Your task to perform on an android device: delete a single message in the gmail app Image 0: 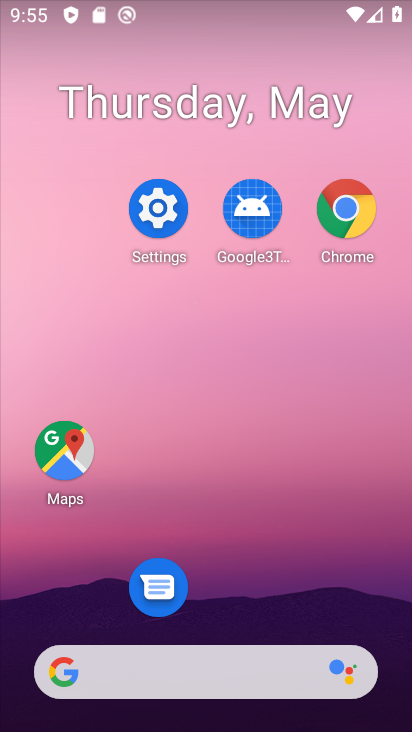
Step 0: drag from (233, 558) to (247, 10)
Your task to perform on an android device: delete a single message in the gmail app Image 1: 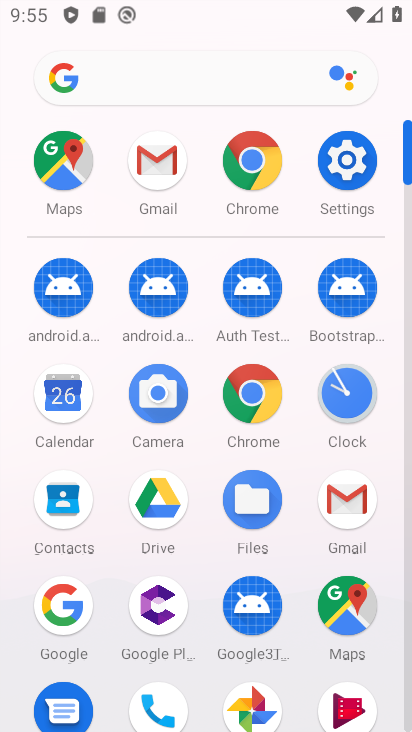
Step 1: click (149, 201)
Your task to perform on an android device: delete a single message in the gmail app Image 2: 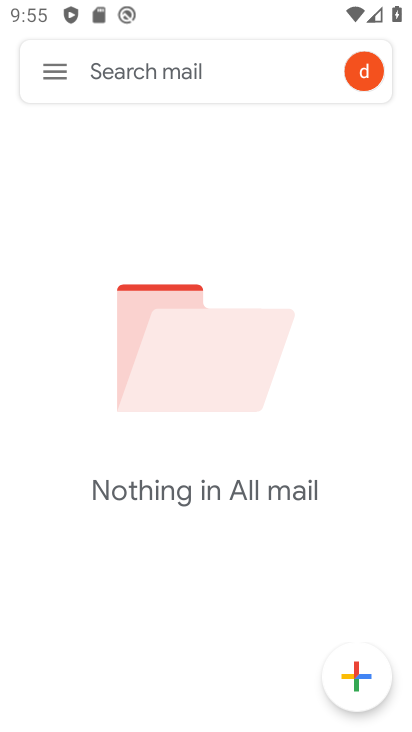
Step 2: task complete